Your task to perform on an android device: Open calendar and show me the first week of next month Image 0: 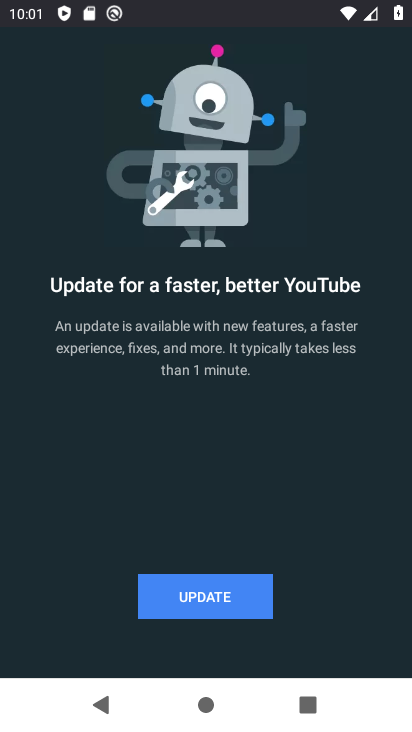
Step 0: press home button
Your task to perform on an android device: Open calendar and show me the first week of next month Image 1: 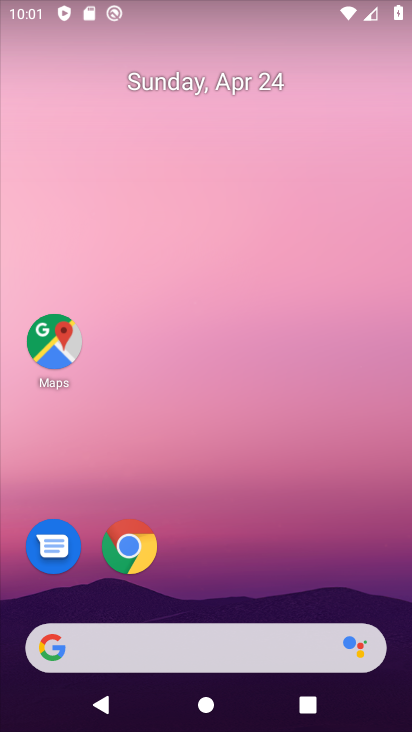
Step 1: drag from (259, 520) to (322, 92)
Your task to perform on an android device: Open calendar and show me the first week of next month Image 2: 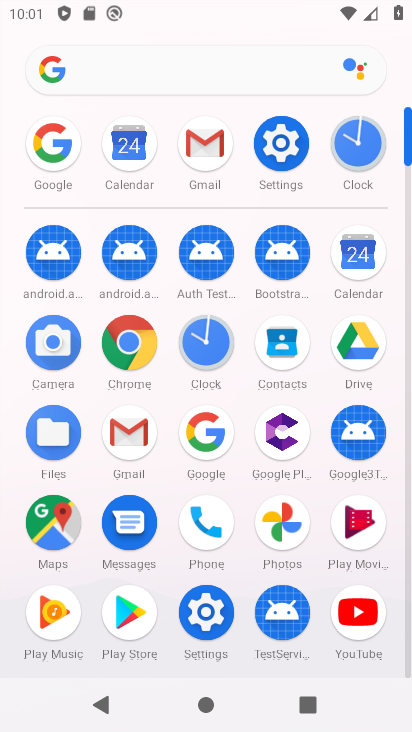
Step 2: click (124, 145)
Your task to perform on an android device: Open calendar and show me the first week of next month Image 3: 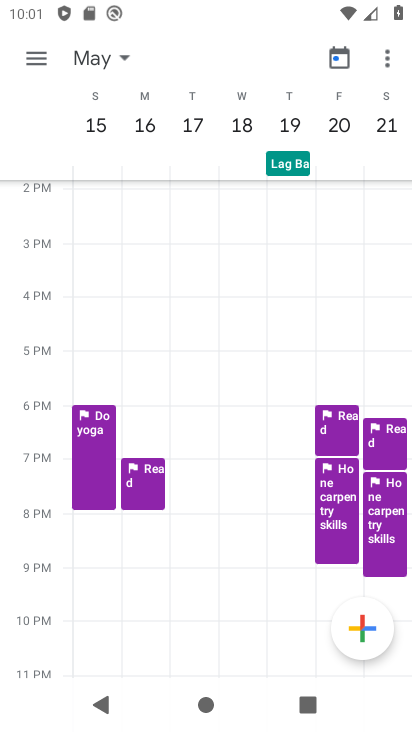
Step 3: task complete